Your task to perform on an android device: move a message to another label in the gmail app Image 0: 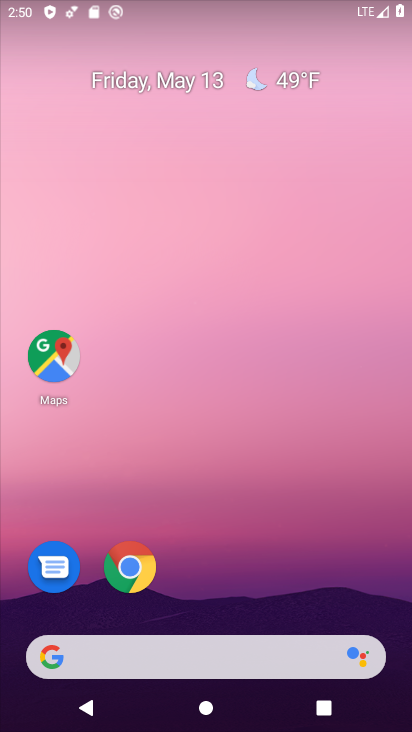
Step 0: drag from (183, 619) to (184, 40)
Your task to perform on an android device: move a message to another label in the gmail app Image 1: 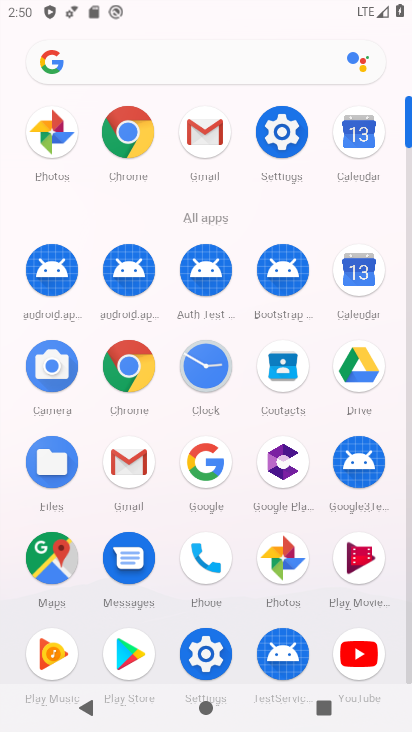
Step 1: click (127, 463)
Your task to perform on an android device: move a message to another label in the gmail app Image 2: 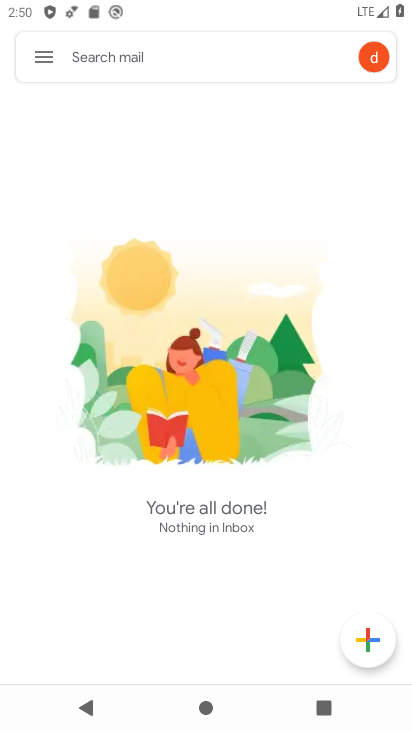
Step 2: click (38, 66)
Your task to perform on an android device: move a message to another label in the gmail app Image 3: 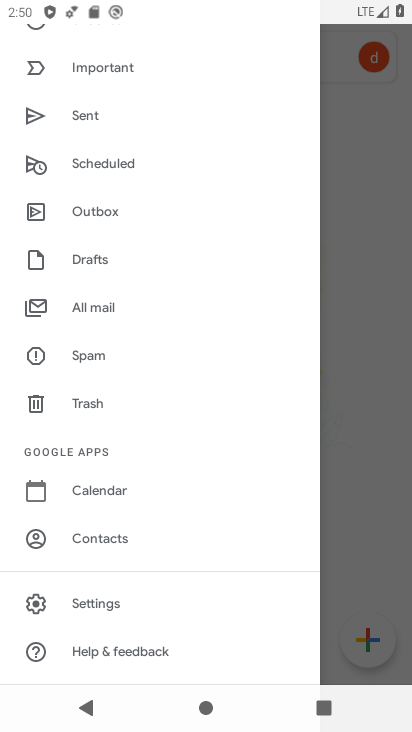
Step 3: task complete